Your task to perform on an android device: add a contact in the contacts app Image 0: 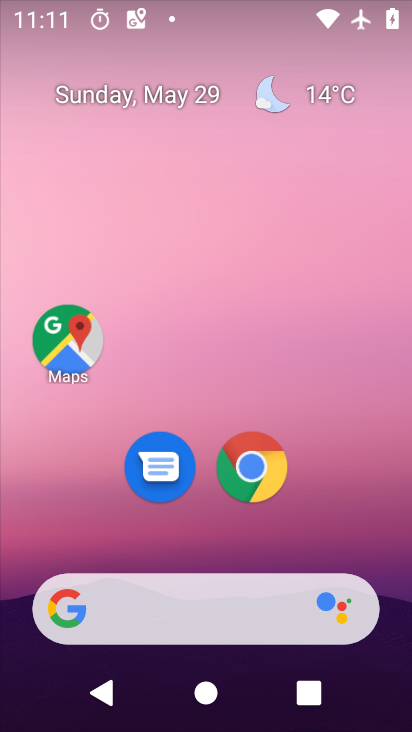
Step 0: drag from (185, 546) to (195, 180)
Your task to perform on an android device: add a contact in the contacts app Image 1: 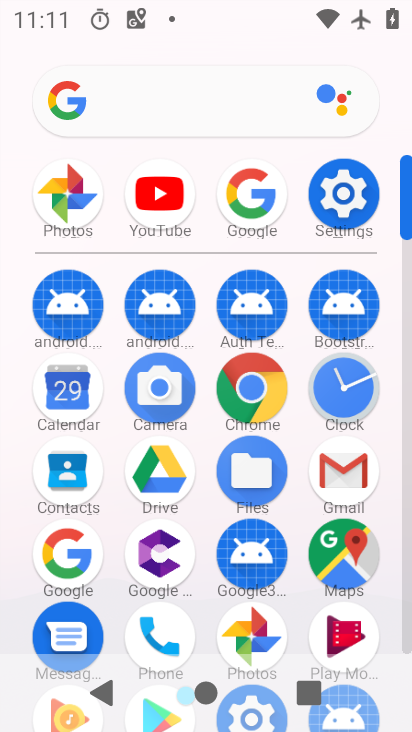
Step 1: click (65, 478)
Your task to perform on an android device: add a contact in the contacts app Image 2: 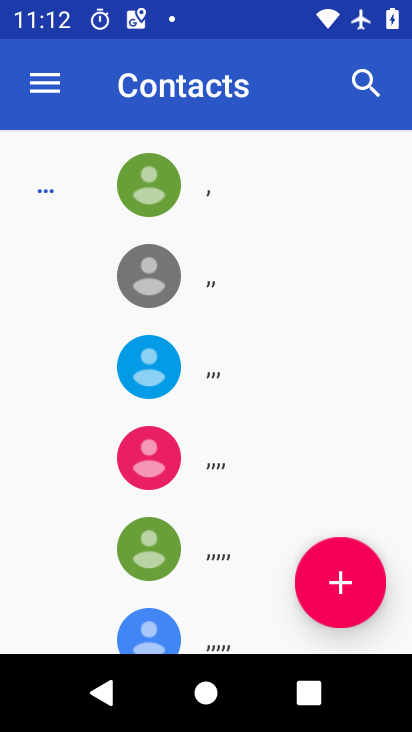
Step 2: click (322, 585)
Your task to perform on an android device: add a contact in the contacts app Image 3: 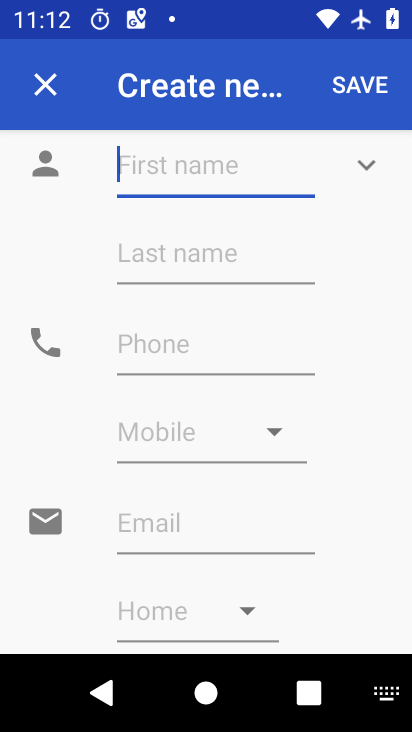
Step 3: type "dfgf"
Your task to perform on an android device: add a contact in the contacts app Image 4: 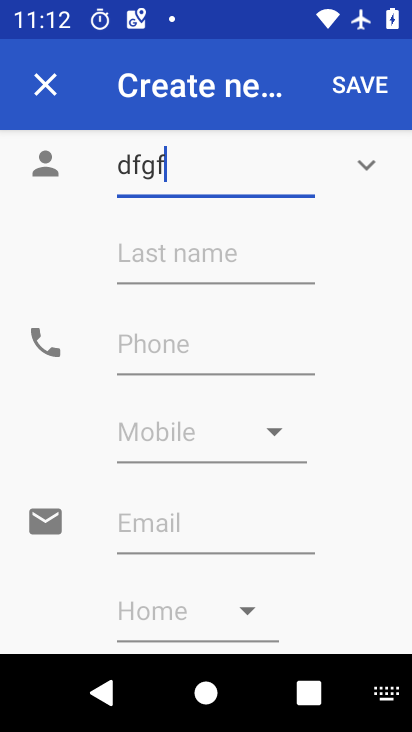
Step 4: click (167, 357)
Your task to perform on an android device: add a contact in the contacts app Image 5: 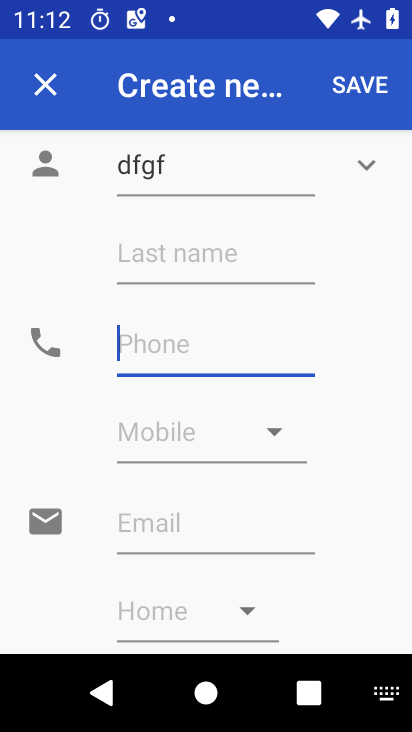
Step 5: type "8767697686"
Your task to perform on an android device: add a contact in the contacts app Image 6: 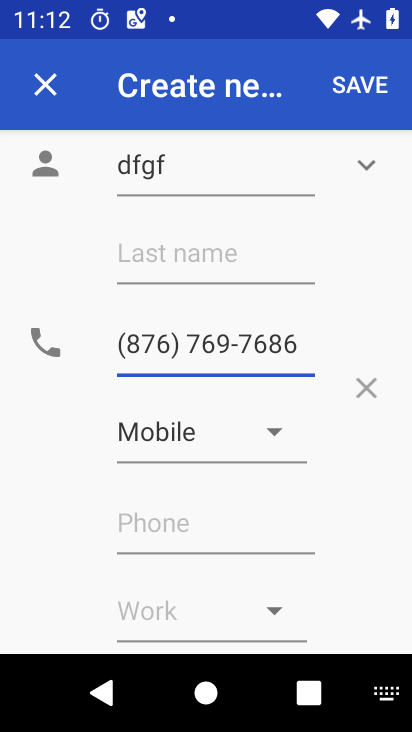
Step 6: click (356, 92)
Your task to perform on an android device: add a contact in the contacts app Image 7: 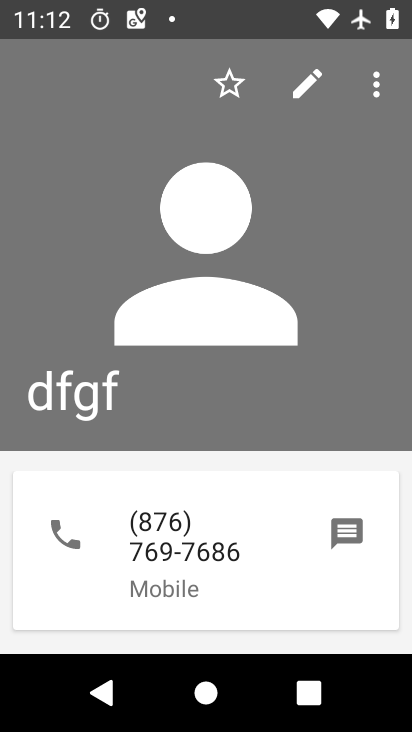
Step 7: task complete